Your task to perform on an android device: uninstall "Airtel Thanks" Image 0: 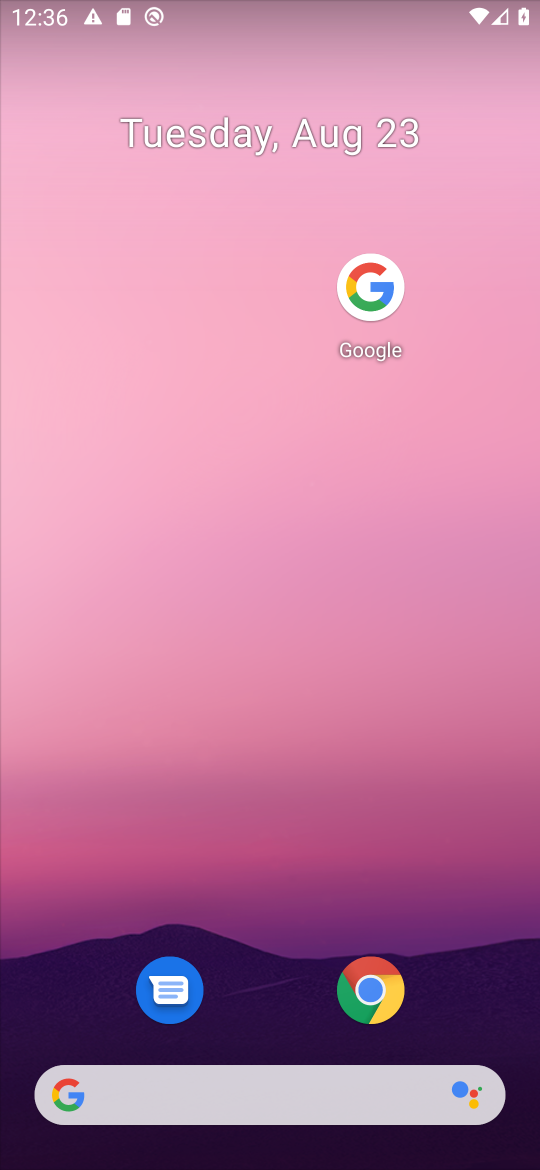
Step 0: drag from (311, 679) to (339, 437)
Your task to perform on an android device: uninstall "Airtel Thanks" Image 1: 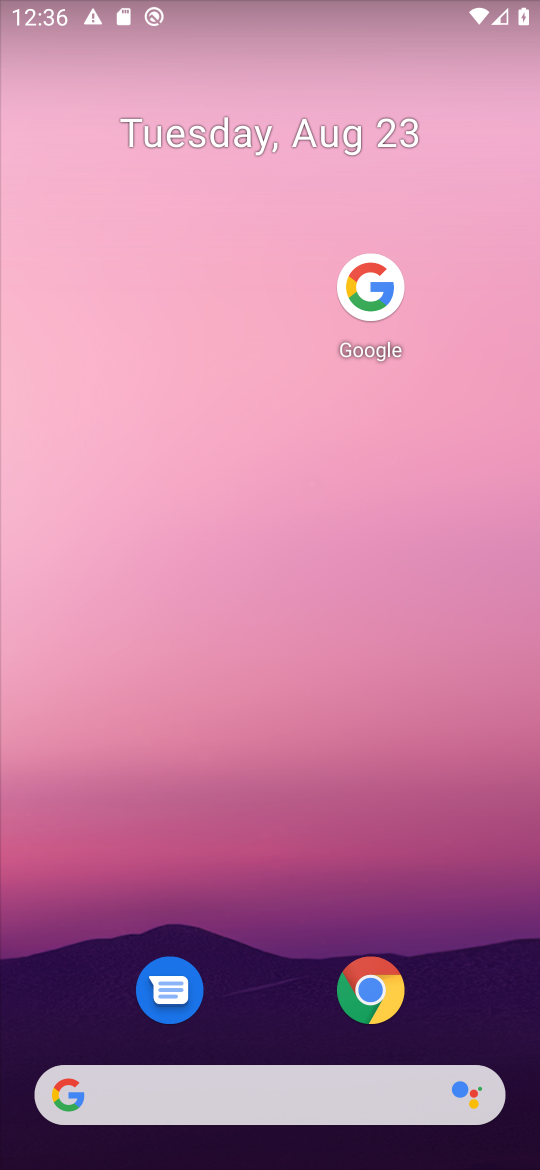
Step 1: drag from (263, 822) to (300, 391)
Your task to perform on an android device: uninstall "Airtel Thanks" Image 2: 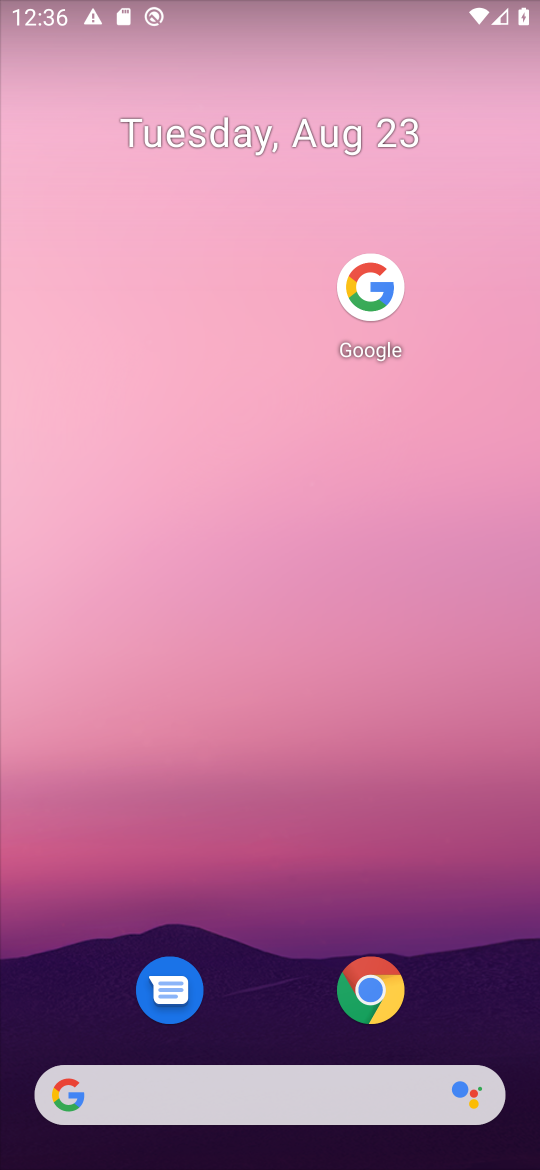
Step 2: drag from (232, 980) to (270, 334)
Your task to perform on an android device: uninstall "Airtel Thanks" Image 3: 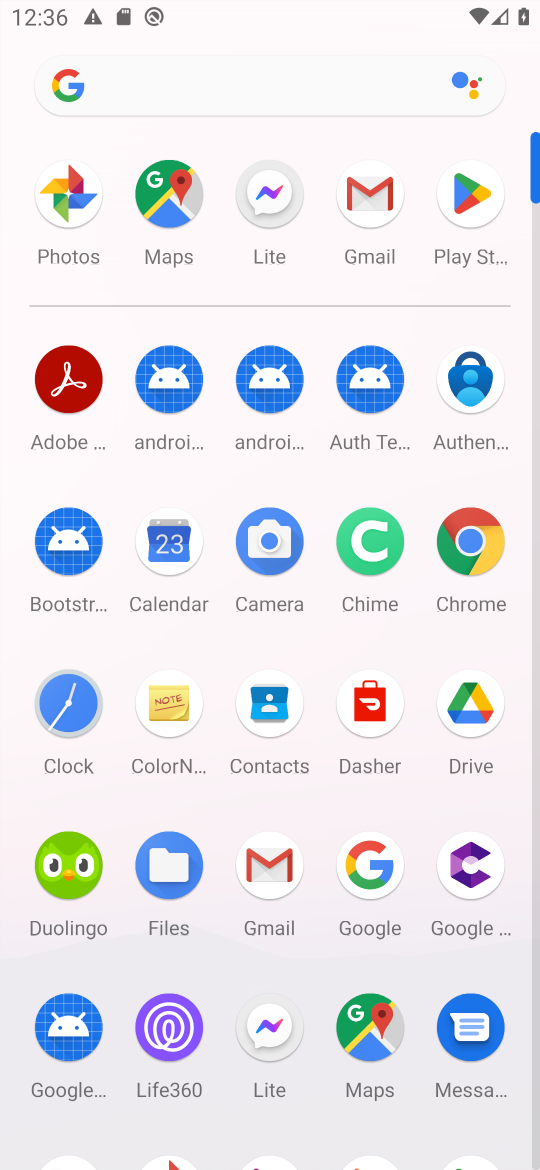
Step 3: click (459, 188)
Your task to perform on an android device: uninstall "Airtel Thanks" Image 4: 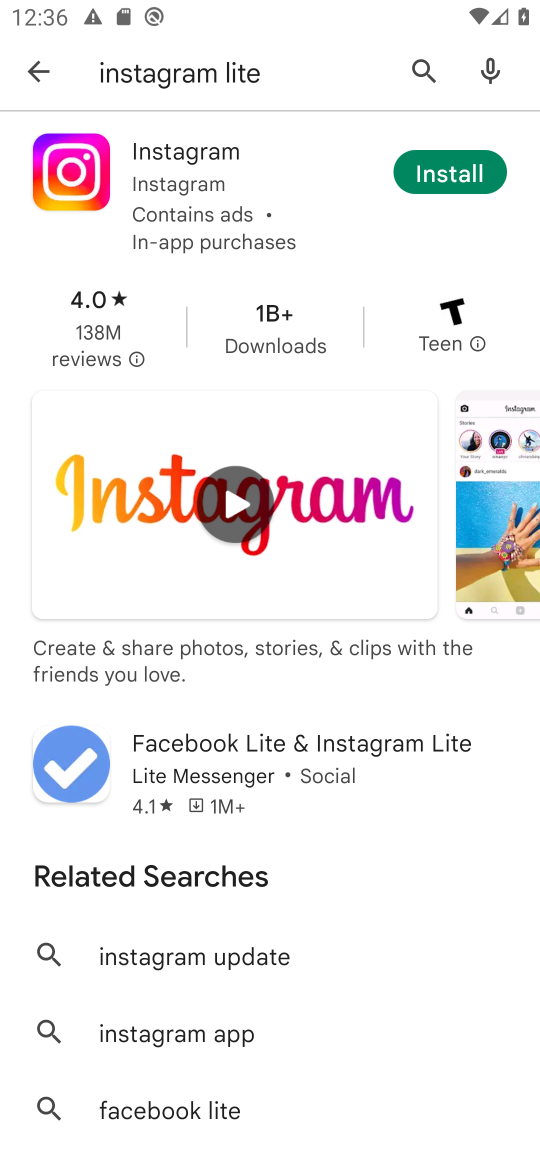
Step 4: click (32, 76)
Your task to perform on an android device: uninstall "Airtel Thanks" Image 5: 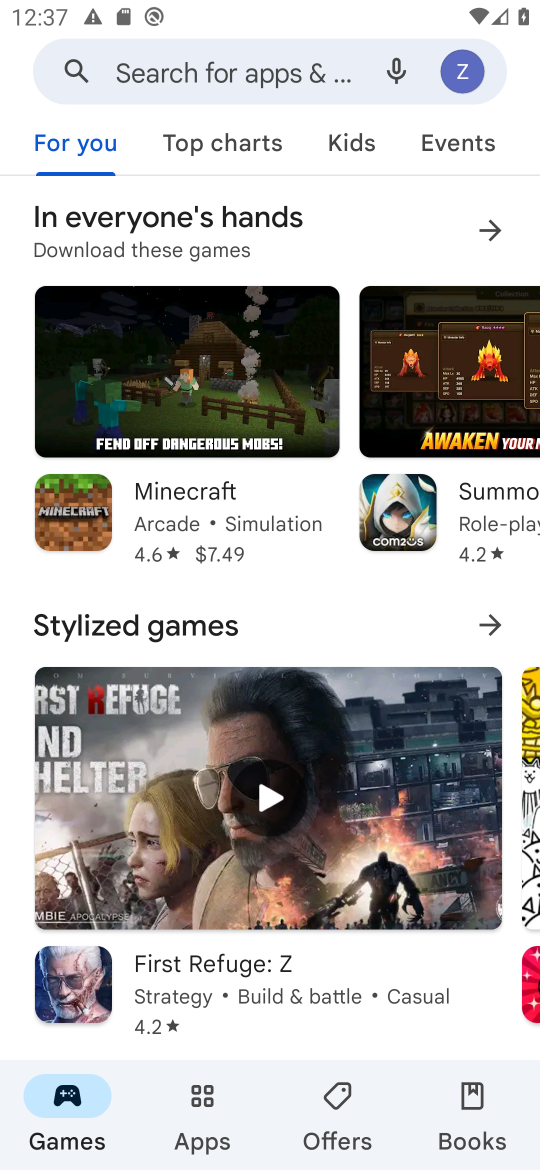
Step 5: click (194, 58)
Your task to perform on an android device: uninstall "Airtel Thanks" Image 6: 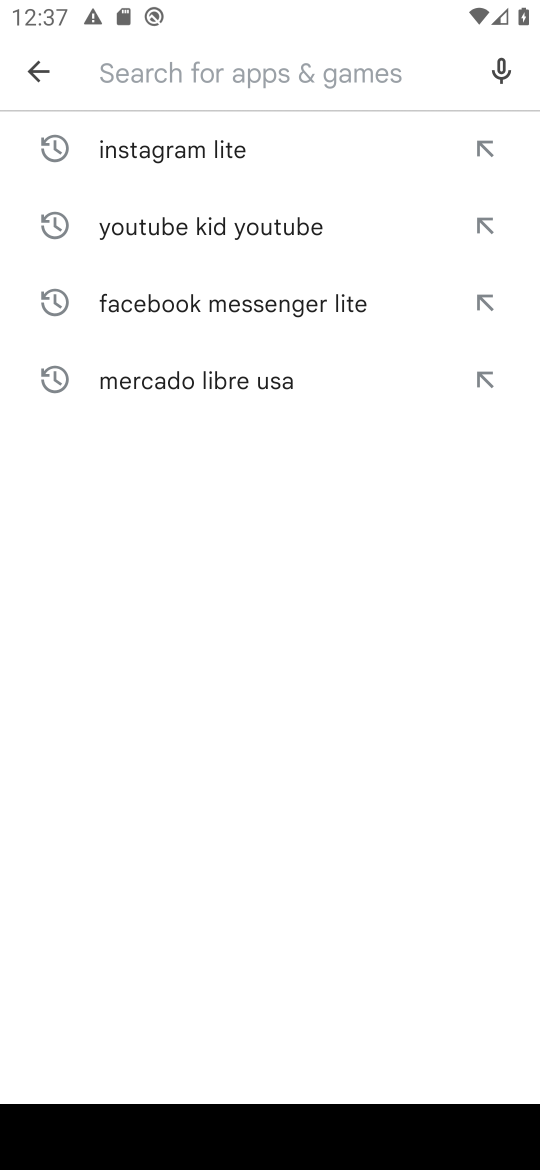
Step 6: type "Airtel Thanks "
Your task to perform on an android device: uninstall "Airtel Thanks" Image 7: 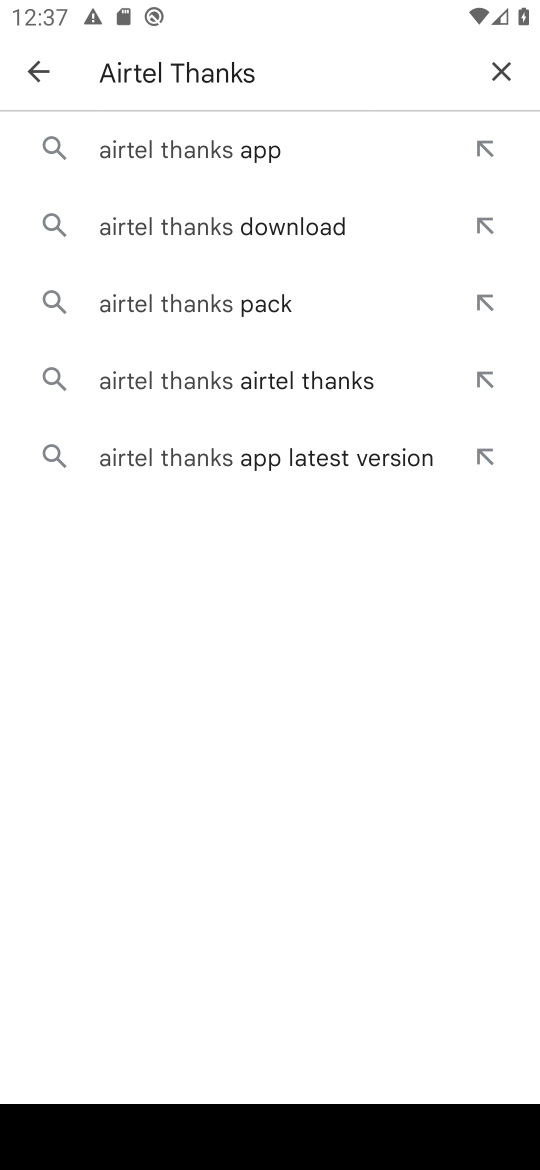
Step 7: click (220, 149)
Your task to perform on an android device: uninstall "Airtel Thanks" Image 8: 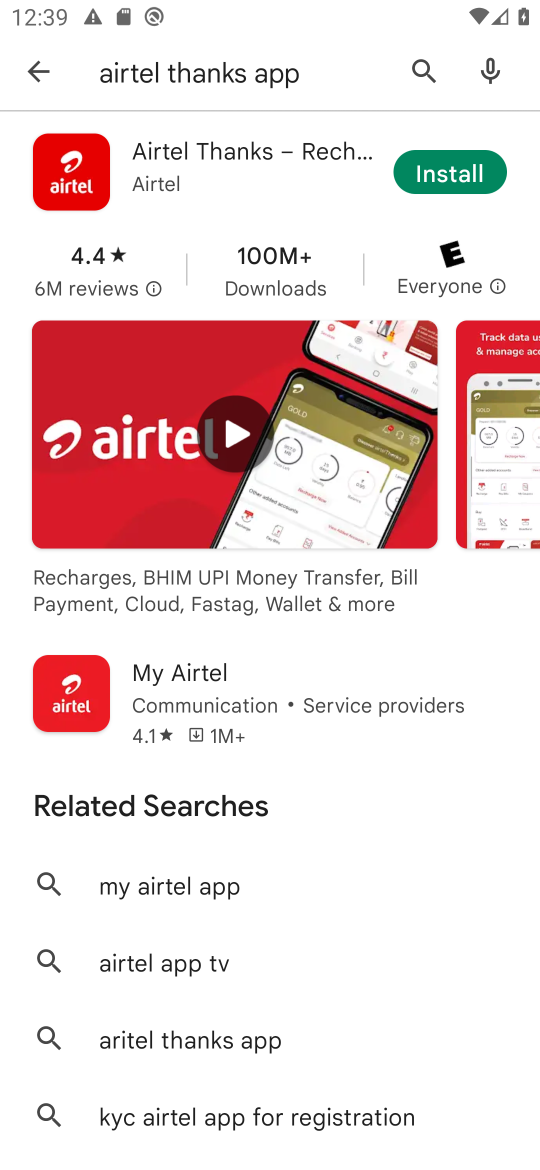
Step 8: click (195, 153)
Your task to perform on an android device: uninstall "Airtel Thanks" Image 9: 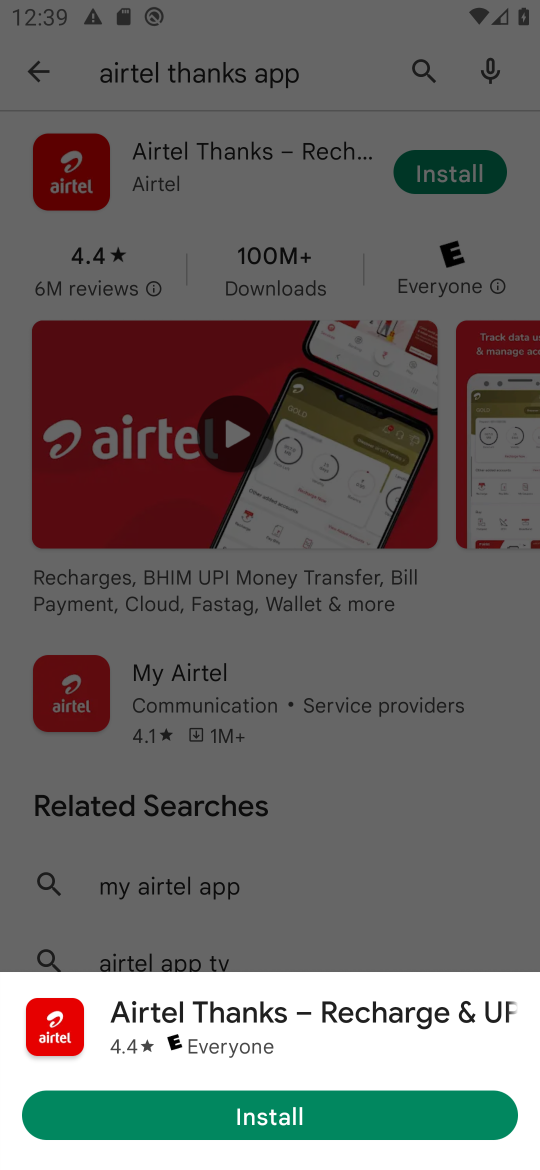
Step 9: click (269, 163)
Your task to perform on an android device: uninstall "Airtel Thanks" Image 10: 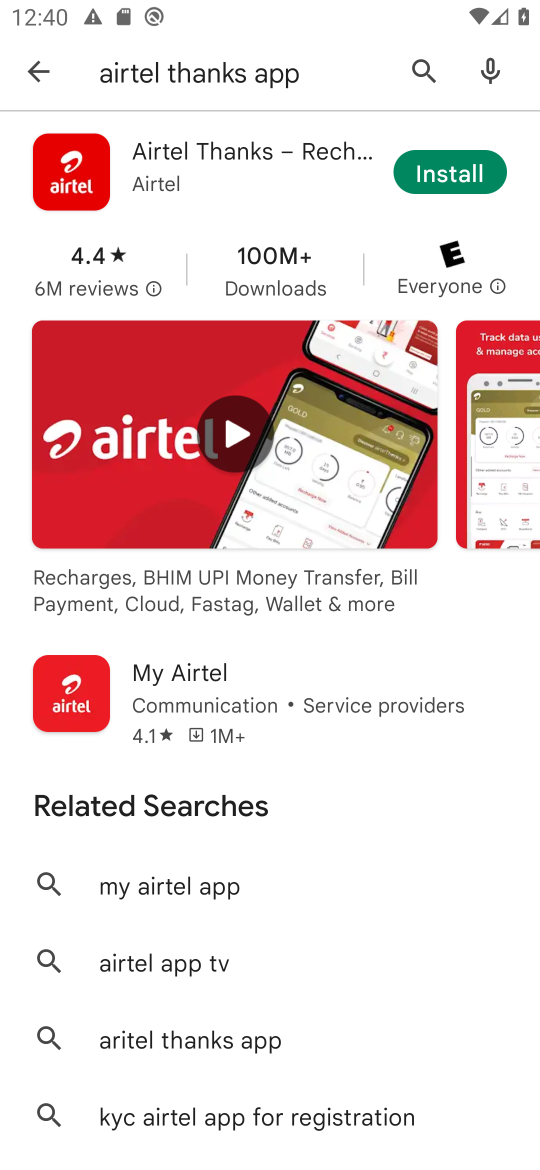
Step 10: task complete